Your task to perform on an android device: turn notification dots off Image 0: 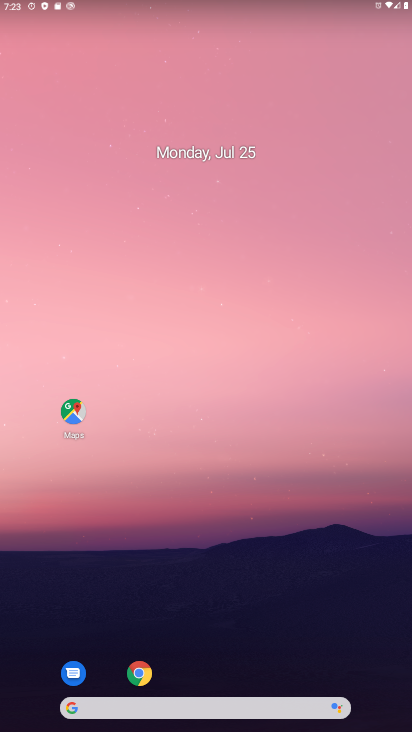
Step 0: drag from (374, 625) to (210, 52)
Your task to perform on an android device: turn notification dots off Image 1: 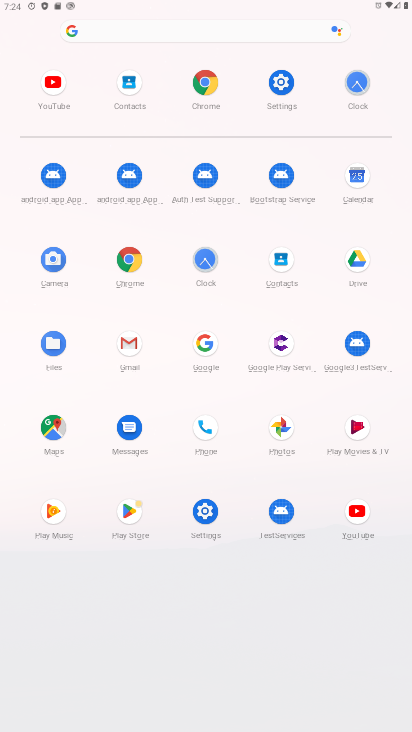
Step 1: click (213, 508)
Your task to perform on an android device: turn notification dots off Image 2: 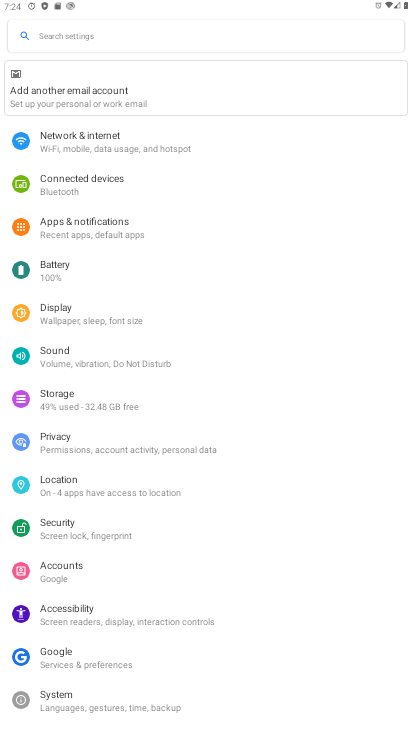
Step 2: click (78, 228)
Your task to perform on an android device: turn notification dots off Image 3: 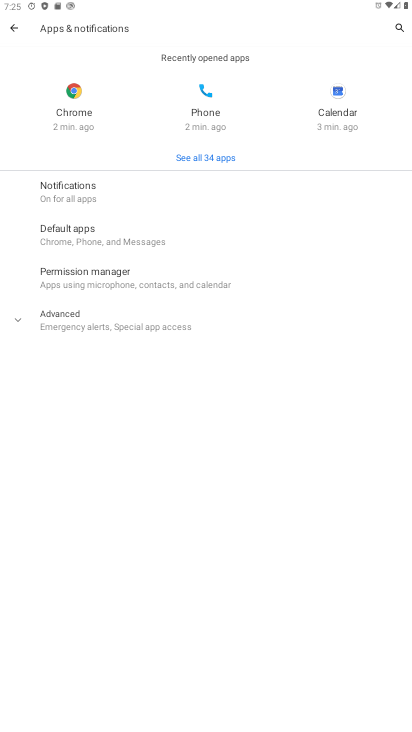
Step 3: click (94, 201)
Your task to perform on an android device: turn notification dots off Image 4: 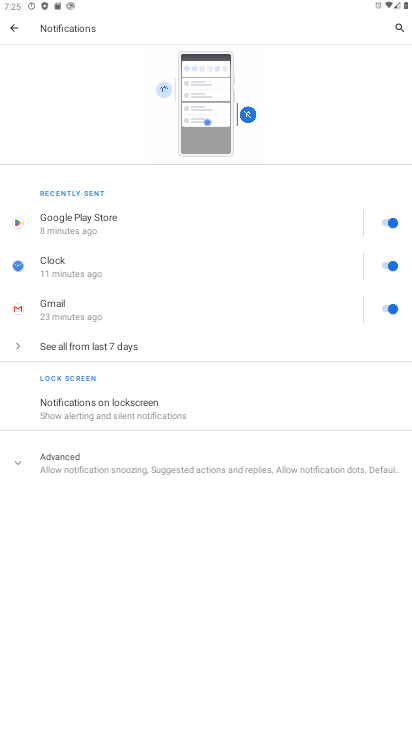
Step 4: click (49, 458)
Your task to perform on an android device: turn notification dots off Image 5: 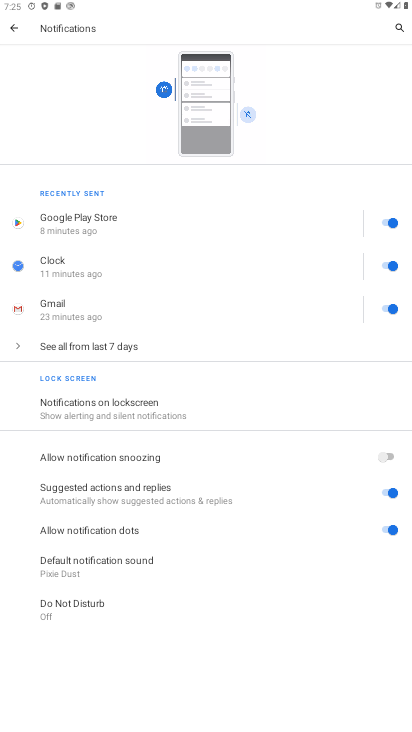
Step 5: click (176, 534)
Your task to perform on an android device: turn notification dots off Image 6: 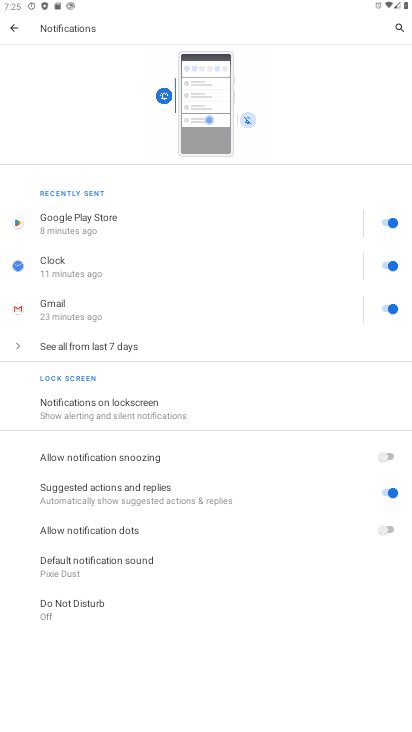
Step 6: task complete